Your task to perform on an android device: Go to accessibility settings Image 0: 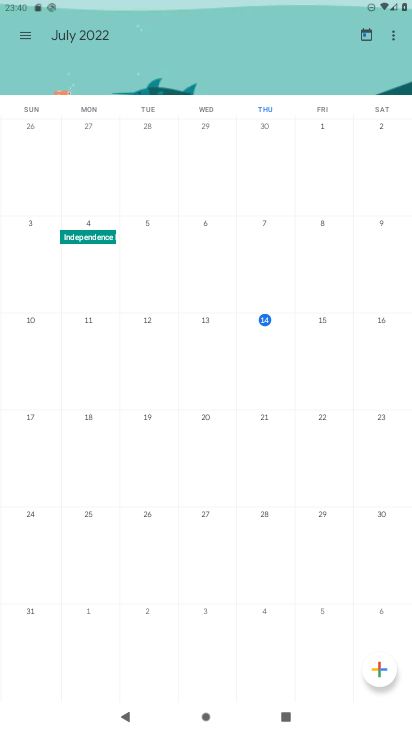
Step 0: press home button
Your task to perform on an android device: Go to accessibility settings Image 1: 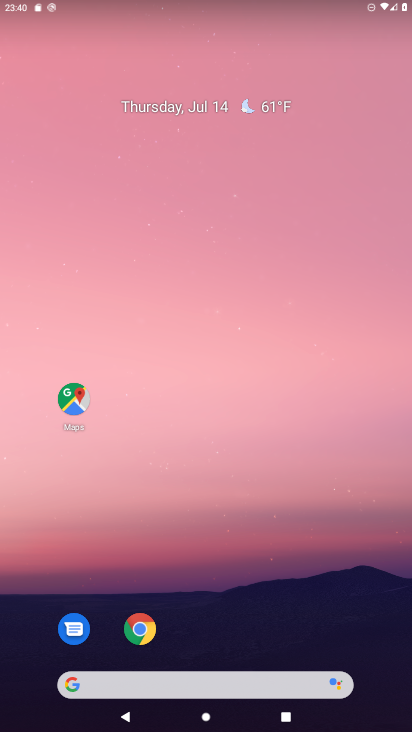
Step 1: drag from (211, 630) to (235, 171)
Your task to perform on an android device: Go to accessibility settings Image 2: 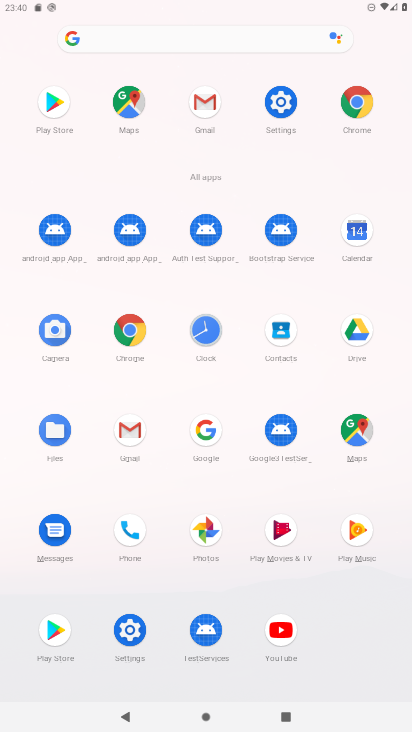
Step 2: click (279, 95)
Your task to perform on an android device: Go to accessibility settings Image 3: 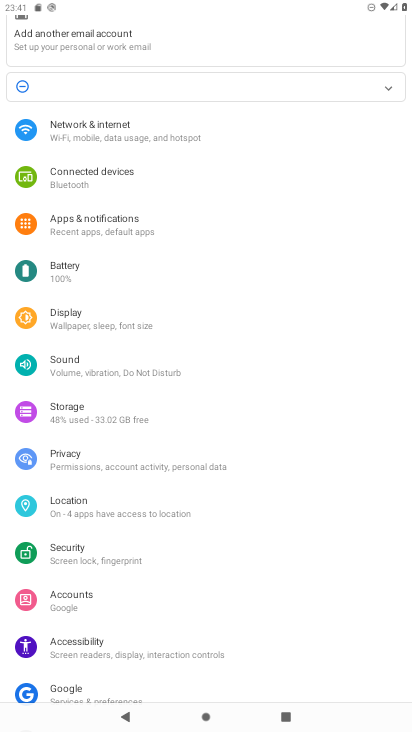
Step 3: click (134, 633)
Your task to perform on an android device: Go to accessibility settings Image 4: 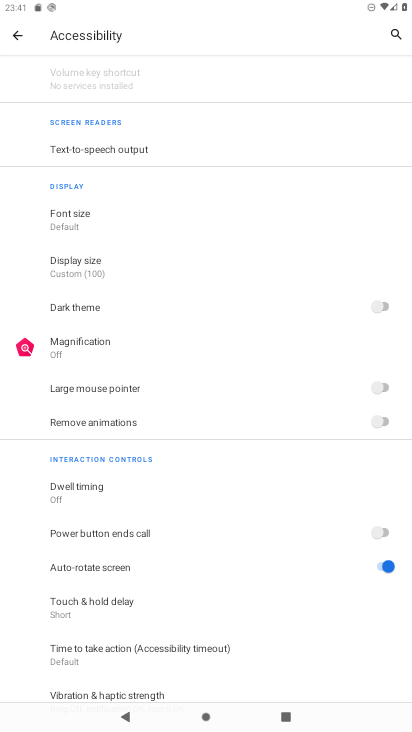
Step 4: task complete